Your task to perform on an android device: change alarm snooze length Image 0: 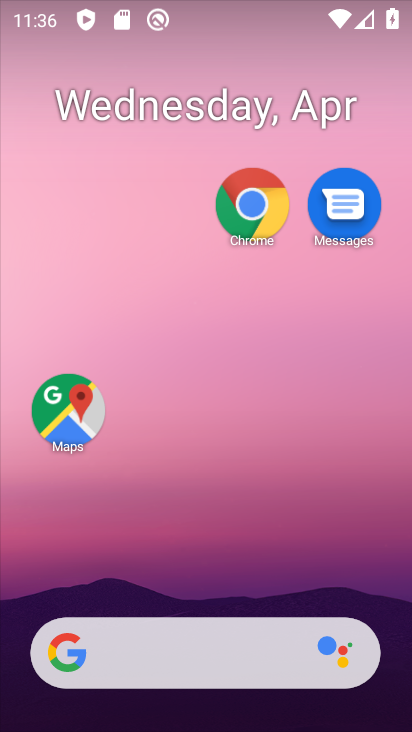
Step 0: drag from (206, 602) to (238, 3)
Your task to perform on an android device: change alarm snooze length Image 1: 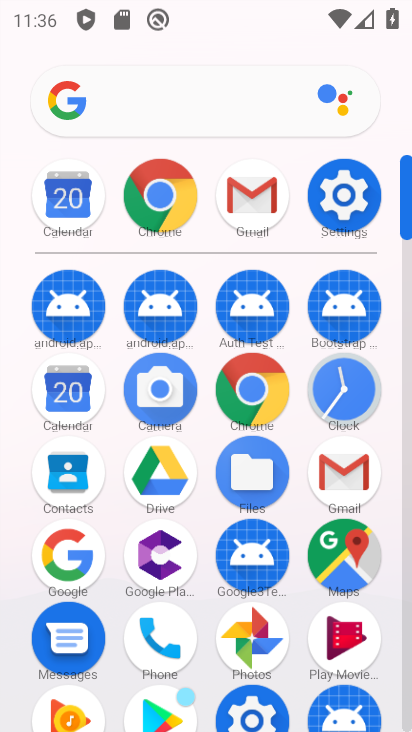
Step 1: click (342, 403)
Your task to perform on an android device: change alarm snooze length Image 2: 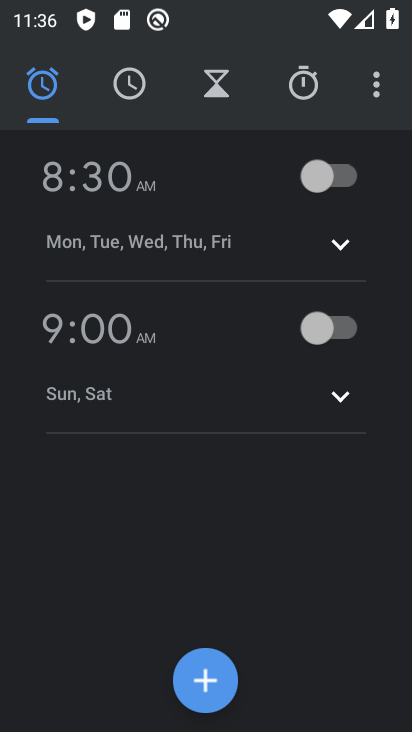
Step 2: click (378, 94)
Your task to perform on an android device: change alarm snooze length Image 3: 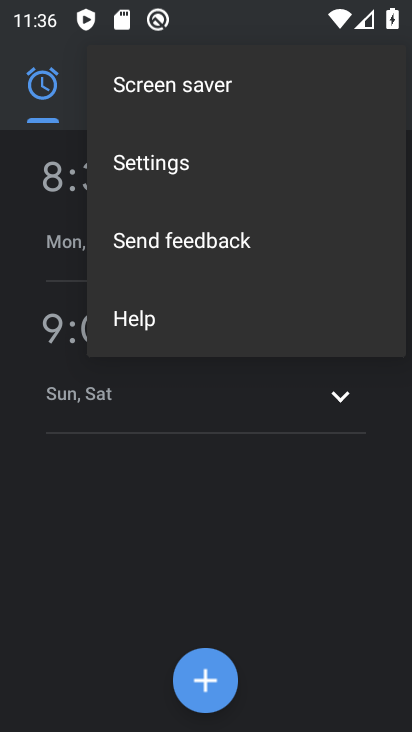
Step 3: click (177, 162)
Your task to perform on an android device: change alarm snooze length Image 4: 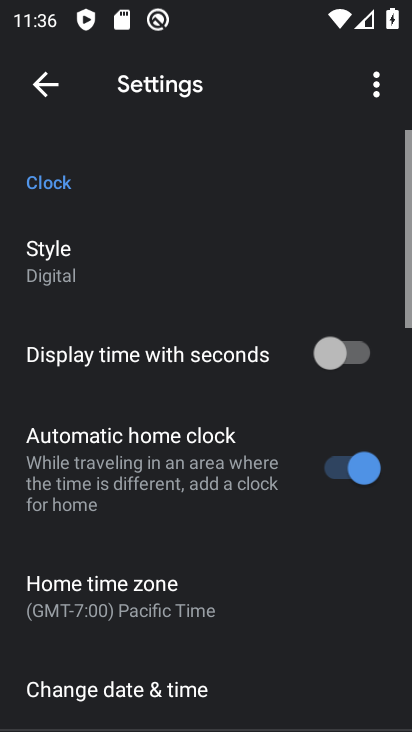
Step 4: drag from (175, 584) to (160, 70)
Your task to perform on an android device: change alarm snooze length Image 5: 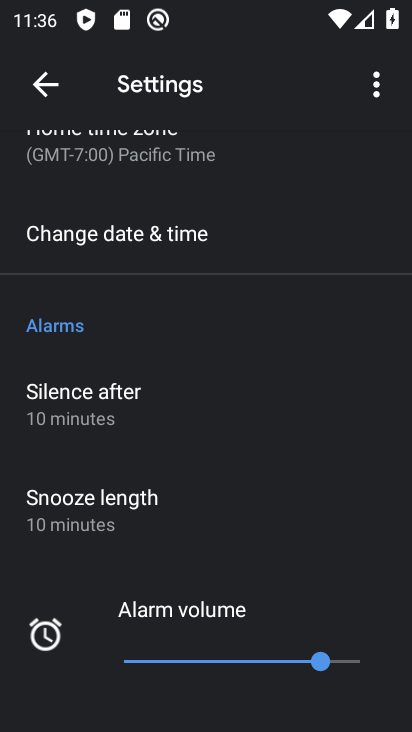
Step 5: click (134, 504)
Your task to perform on an android device: change alarm snooze length Image 6: 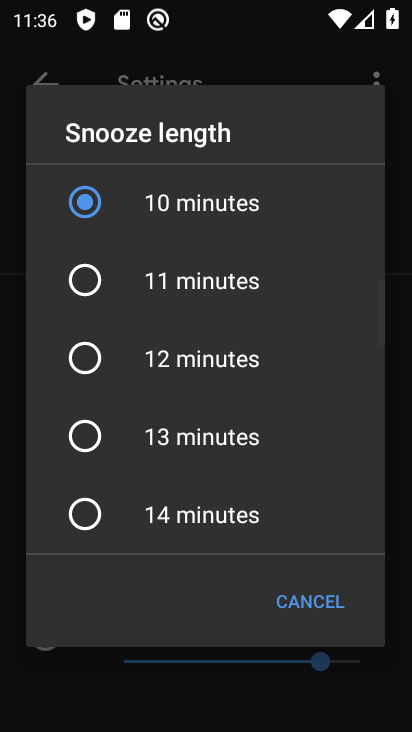
Step 6: click (143, 279)
Your task to perform on an android device: change alarm snooze length Image 7: 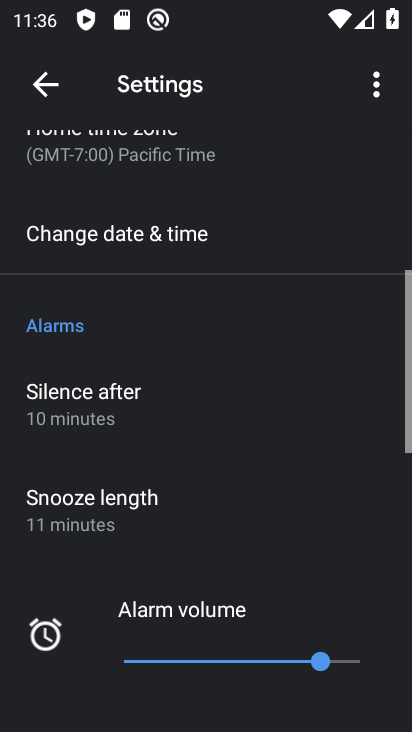
Step 7: task complete